Your task to perform on an android device: Play the last video I watched on Youtube Image 0: 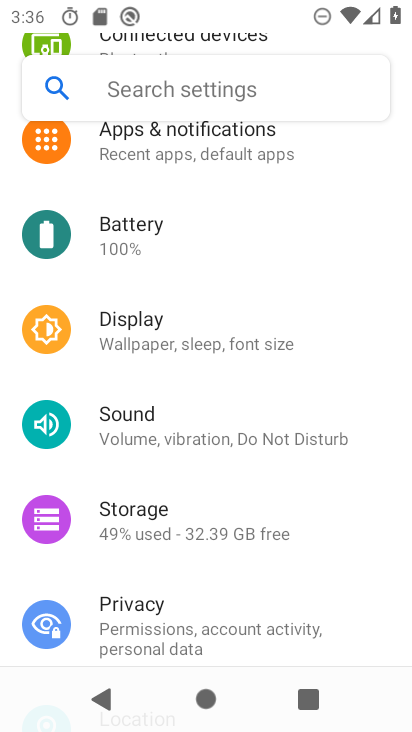
Step 0: press home button
Your task to perform on an android device: Play the last video I watched on Youtube Image 1: 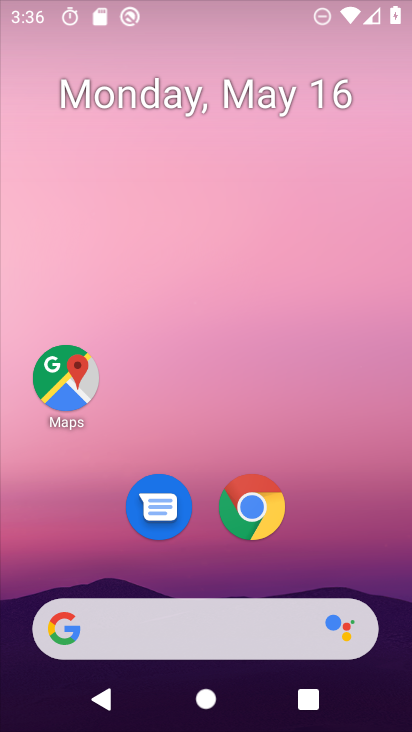
Step 1: drag from (360, 512) to (371, 31)
Your task to perform on an android device: Play the last video I watched on Youtube Image 2: 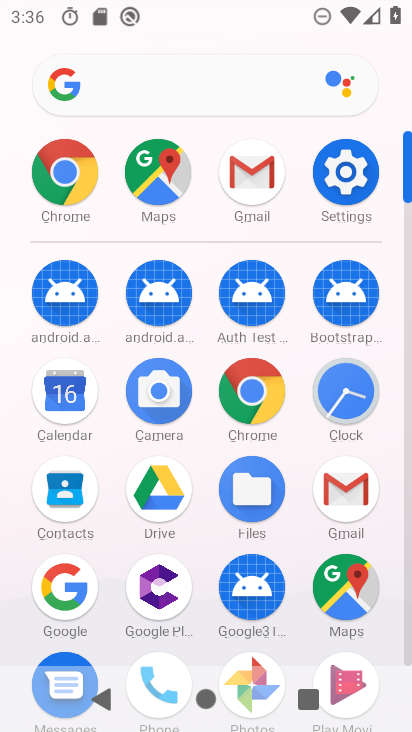
Step 2: drag from (397, 626) to (366, 160)
Your task to perform on an android device: Play the last video I watched on Youtube Image 3: 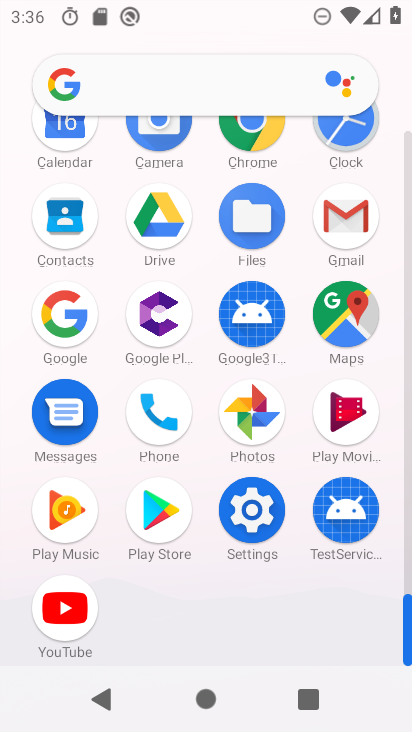
Step 3: click (77, 600)
Your task to perform on an android device: Play the last video I watched on Youtube Image 4: 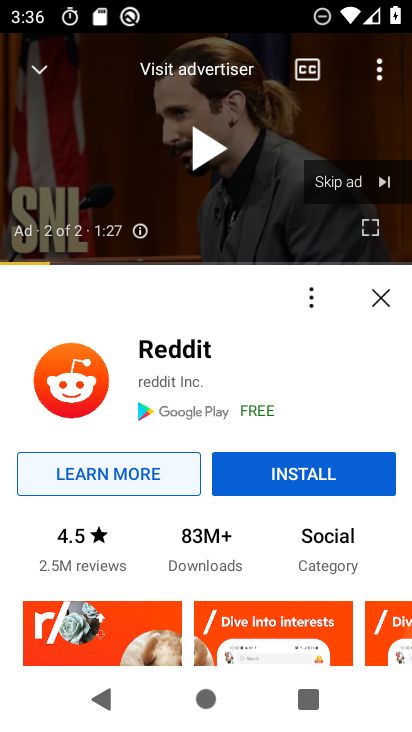
Step 4: click (225, 157)
Your task to perform on an android device: Play the last video I watched on Youtube Image 5: 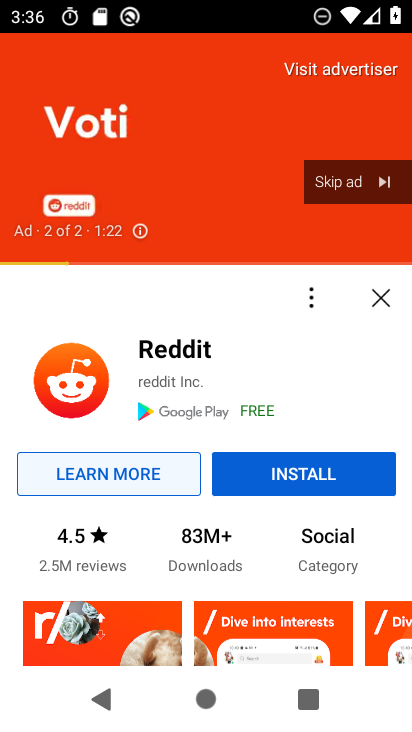
Step 5: task complete